Your task to perform on an android device: Search for pizza restaurants on Maps Image 0: 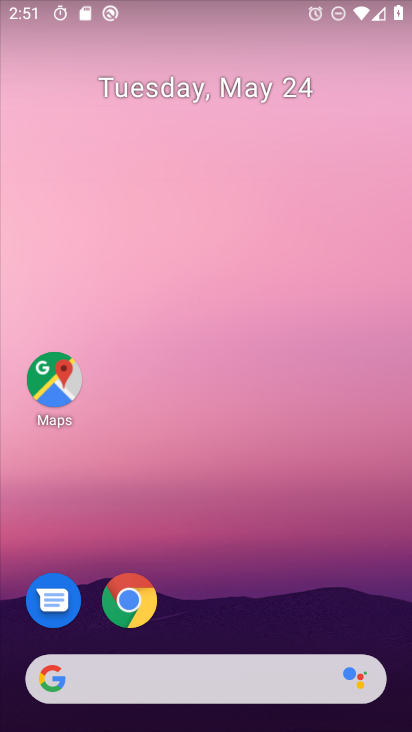
Step 0: click (50, 385)
Your task to perform on an android device: Search for pizza restaurants on Maps Image 1: 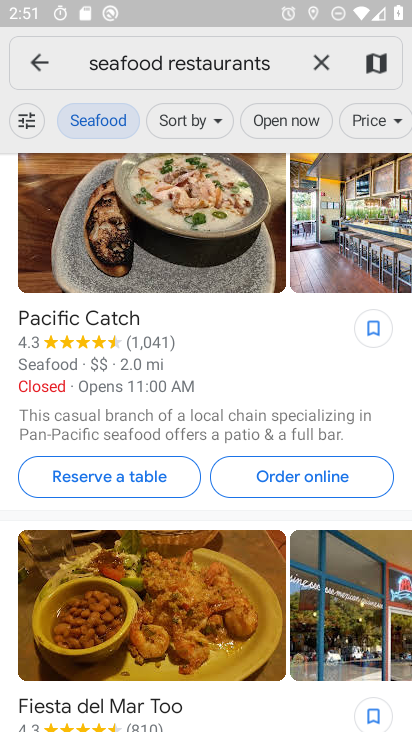
Step 1: click (192, 55)
Your task to perform on an android device: Search for pizza restaurants on Maps Image 2: 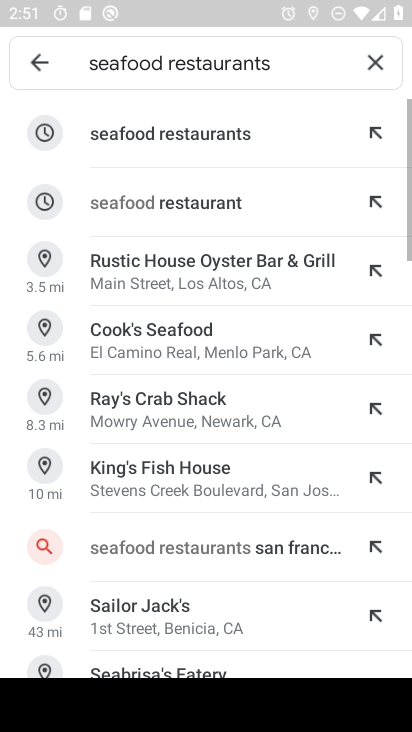
Step 2: click (366, 59)
Your task to perform on an android device: Search for pizza restaurants on Maps Image 3: 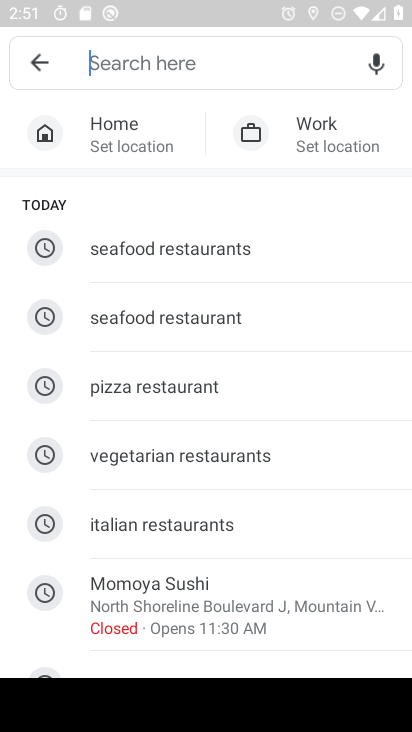
Step 3: type "pizza restaurants"
Your task to perform on an android device: Search for pizza restaurants on Maps Image 4: 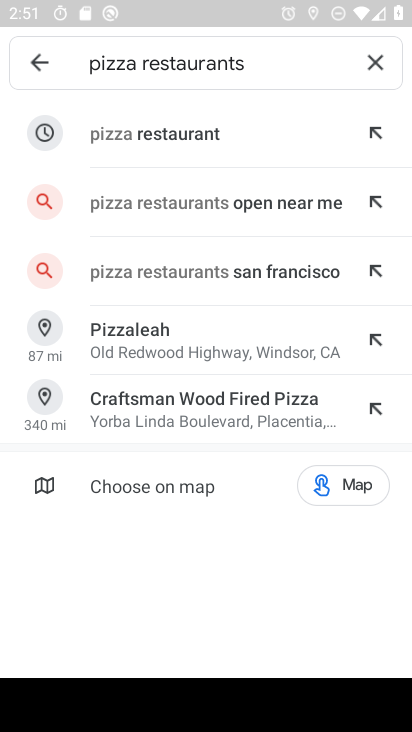
Step 4: press enter
Your task to perform on an android device: Search for pizza restaurants on Maps Image 5: 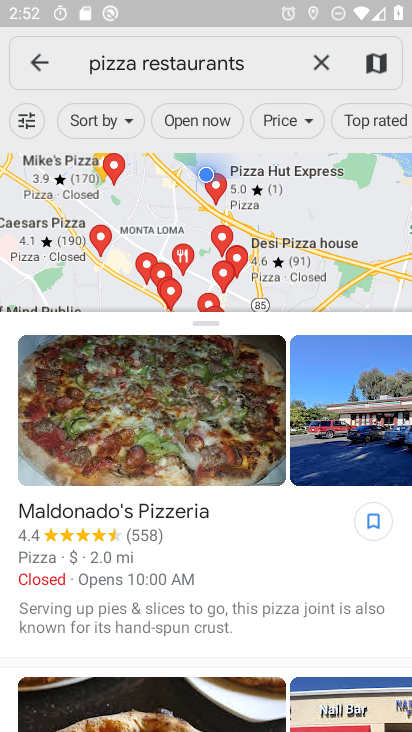
Step 5: task complete